Your task to perform on an android device: Go to Google Image 0: 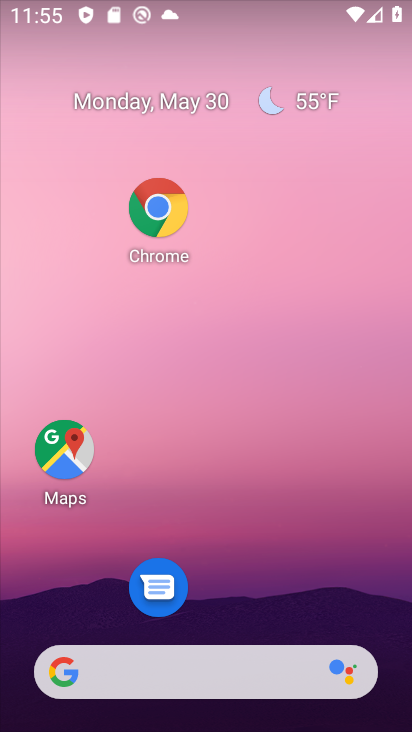
Step 0: drag from (261, 568) to (263, 153)
Your task to perform on an android device: Go to Google Image 1: 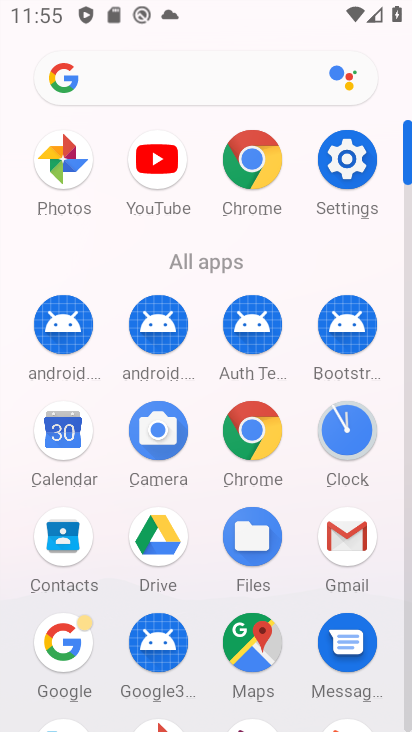
Step 1: click (72, 670)
Your task to perform on an android device: Go to Google Image 2: 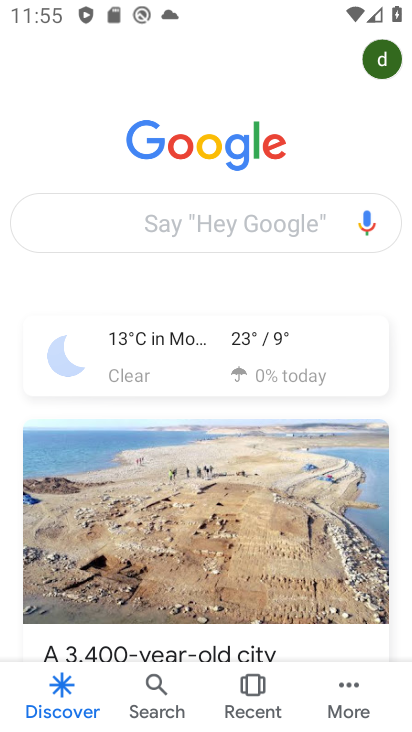
Step 2: task complete